Your task to perform on an android device: turn on translation in the chrome app Image 0: 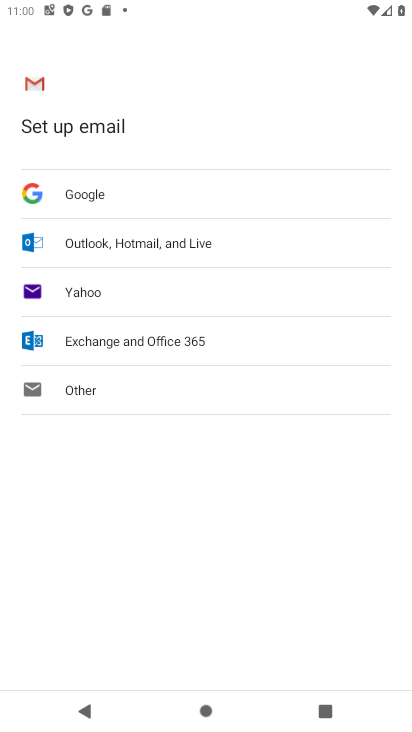
Step 0: press home button
Your task to perform on an android device: turn on translation in the chrome app Image 1: 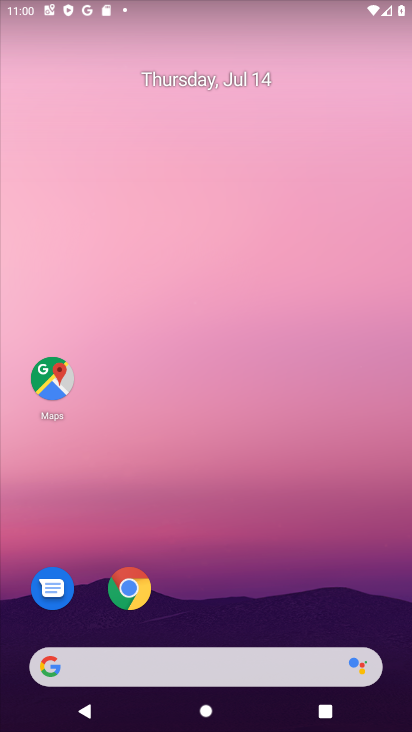
Step 1: click (119, 586)
Your task to perform on an android device: turn on translation in the chrome app Image 2: 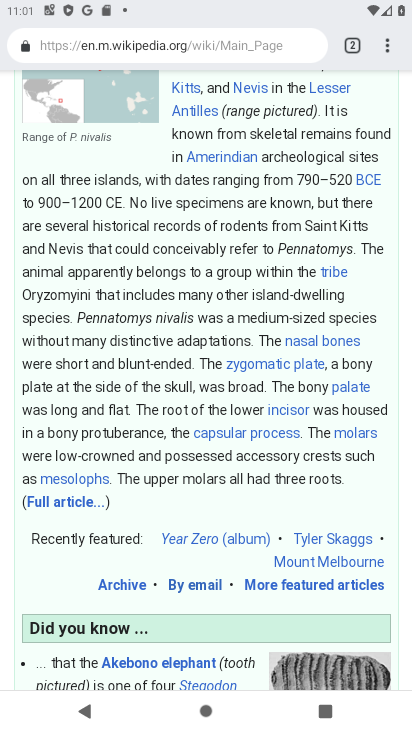
Step 2: drag from (384, 42) to (322, 527)
Your task to perform on an android device: turn on translation in the chrome app Image 3: 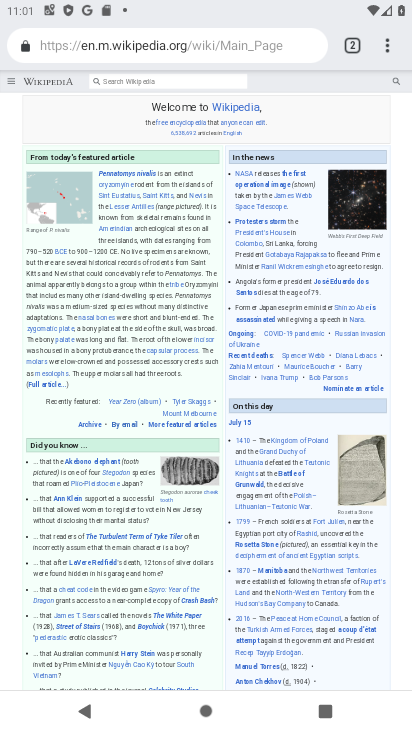
Step 3: drag from (390, 45) to (262, 555)
Your task to perform on an android device: turn on translation in the chrome app Image 4: 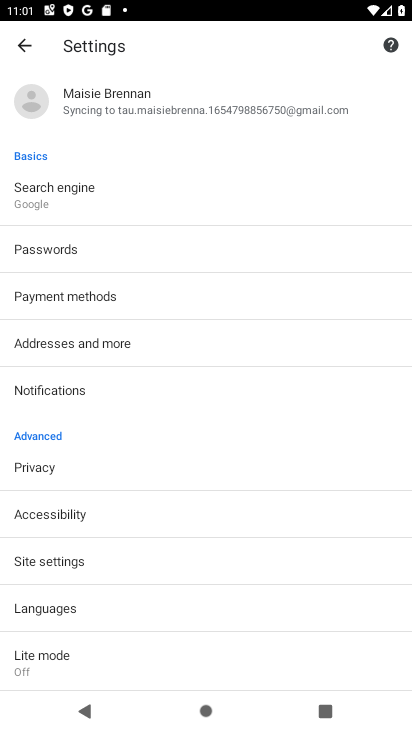
Step 4: click (62, 610)
Your task to perform on an android device: turn on translation in the chrome app Image 5: 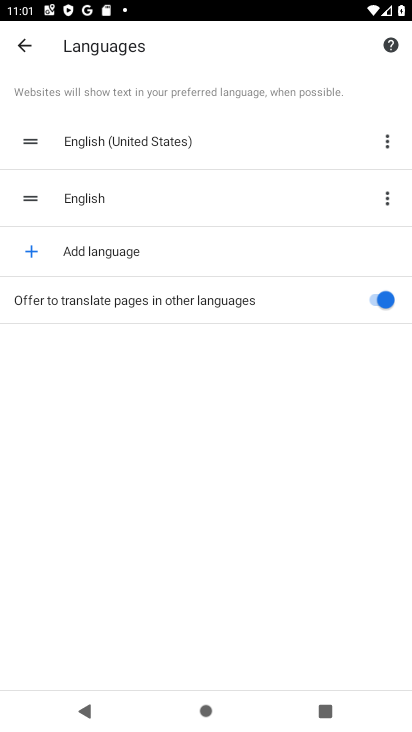
Step 5: task complete